Your task to perform on an android device: Go to calendar. Show me events next week Image 0: 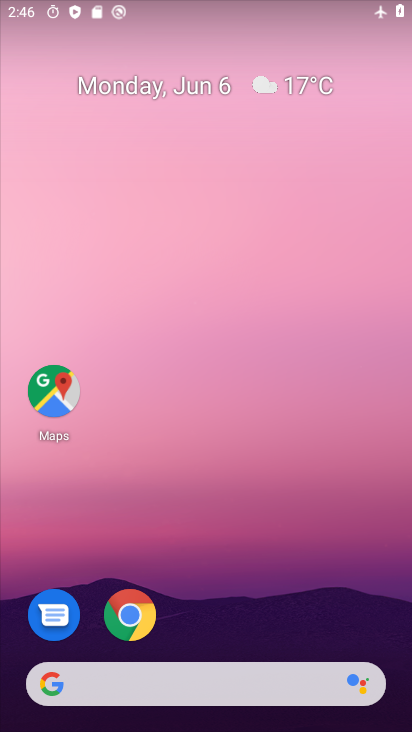
Step 0: click (225, 315)
Your task to perform on an android device: Go to calendar. Show me events next week Image 1: 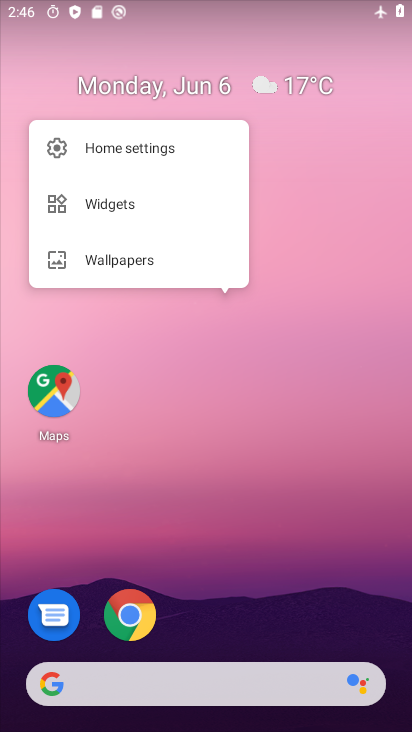
Step 1: click (265, 550)
Your task to perform on an android device: Go to calendar. Show me events next week Image 2: 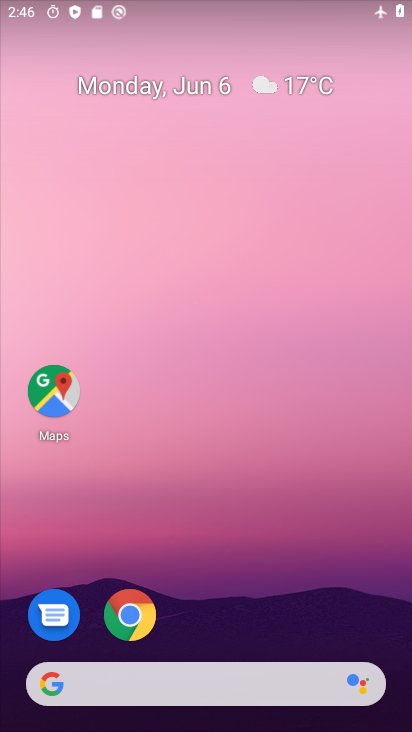
Step 2: drag from (268, 615) to (312, 269)
Your task to perform on an android device: Go to calendar. Show me events next week Image 3: 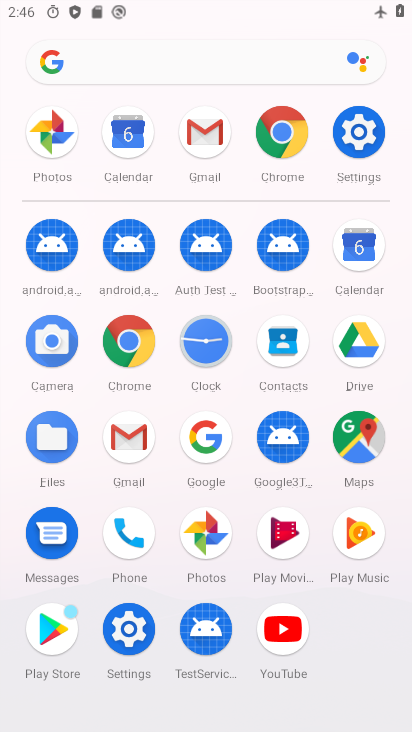
Step 3: click (371, 241)
Your task to perform on an android device: Go to calendar. Show me events next week Image 4: 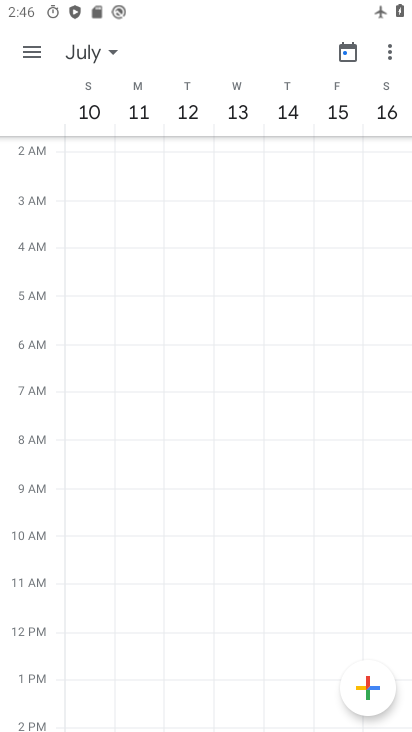
Step 4: click (91, 58)
Your task to perform on an android device: Go to calendar. Show me events next week Image 5: 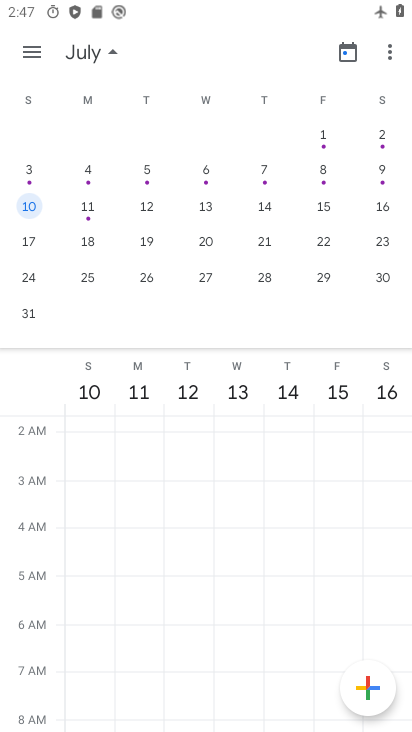
Step 5: drag from (98, 260) to (359, 302)
Your task to perform on an android device: Go to calendar. Show me events next week Image 6: 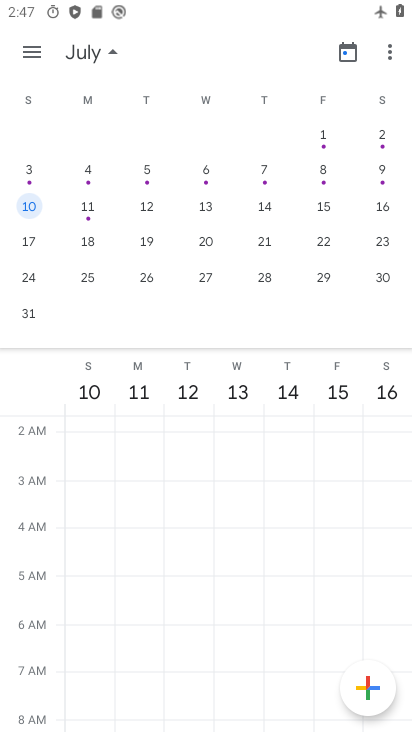
Step 6: drag from (70, 227) to (393, 251)
Your task to perform on an android device: Go to calendar. Show me events next week Image 7: 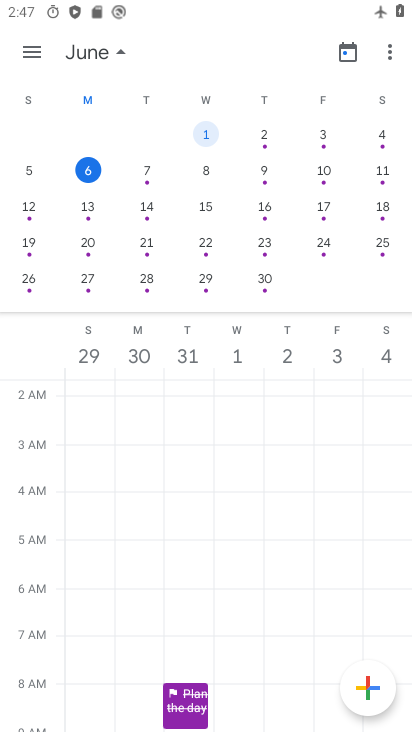
Step 7: click (83, 164)
Your task to perform on an android device: Go to calendar. Show me events next week Image 8: 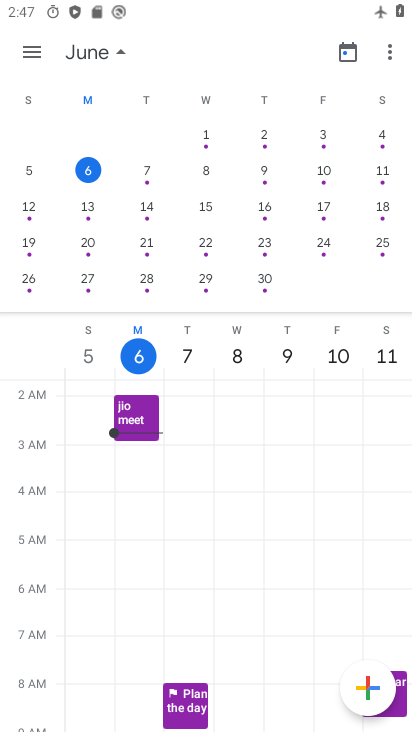
Step 8: click (32, 49)
Your task to perform on an android device: Go to calendar. Show me events next week Image 9: 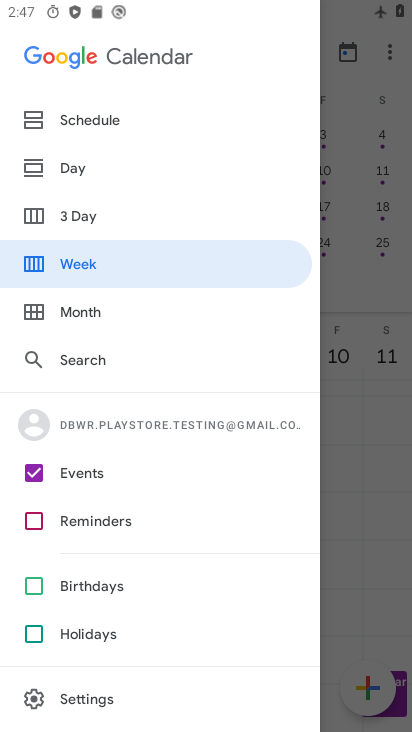
Step 9: click (90, 265)
Your task to perform on an android device: Go to calendar. Show me events next week Image 10: 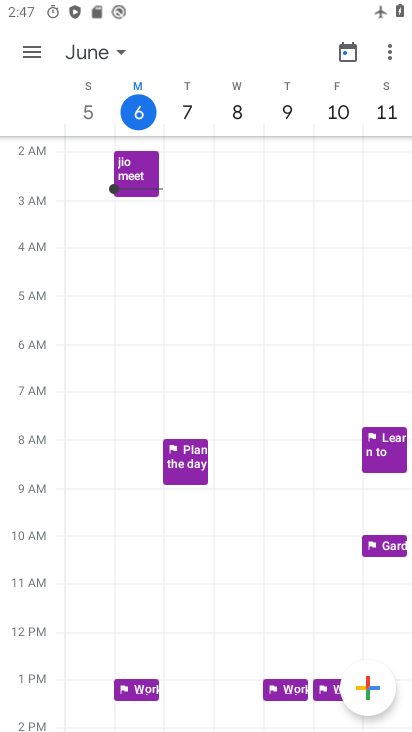
Step 10: task complete